Your task to perform on an android device: turn notification dots off Image 0: 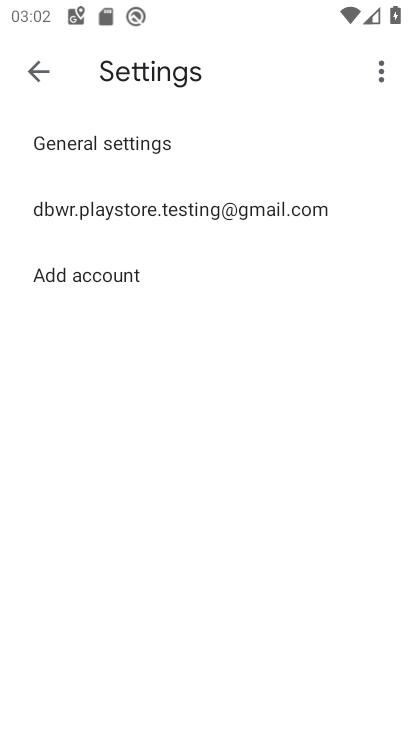
Step 0: press home button
Your task to perform on an android device: turn notification dots off Image 1: 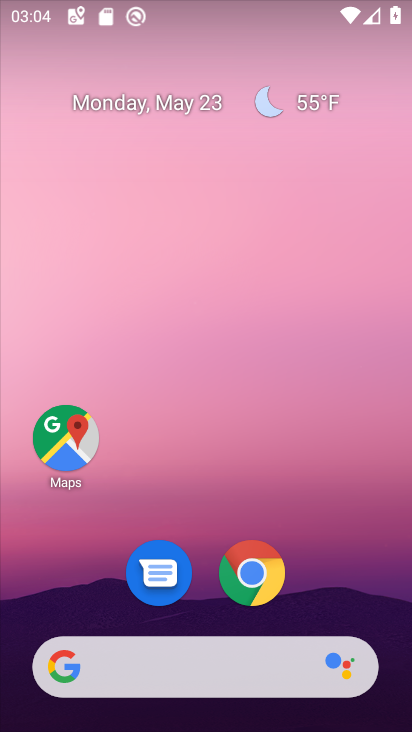
Step 1: drag from (328, 569) to (245, 29)
Your task to perform on an android device: turn notification dots off Image 2: 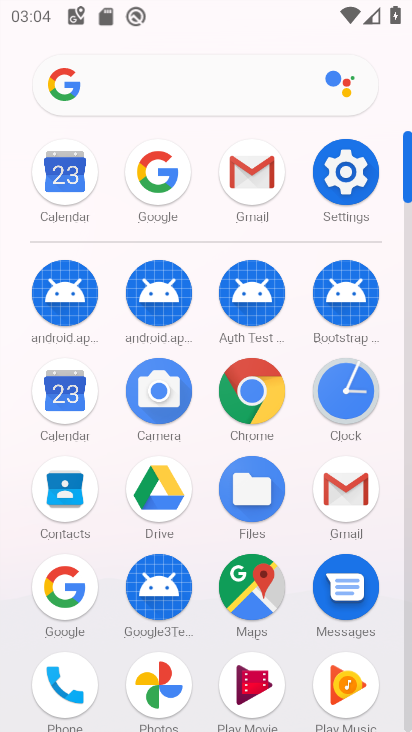
Step 2: click (354, 186)
Your task to perform on an android device: turn notification dots off Image 3: 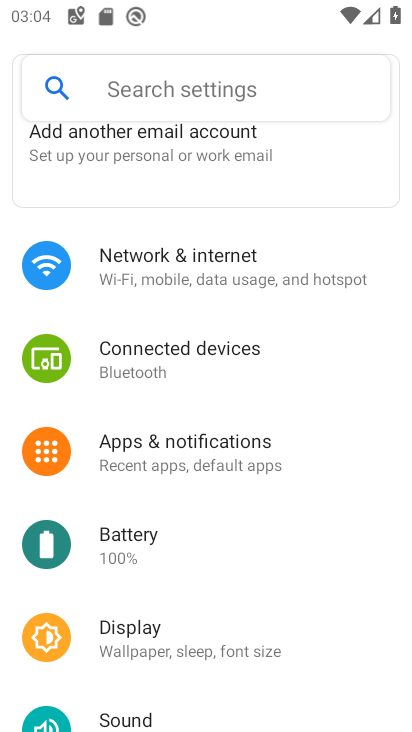
Step 3: click (199, 459)
Your task to perform on an android device: turn notification dots off Image 4: 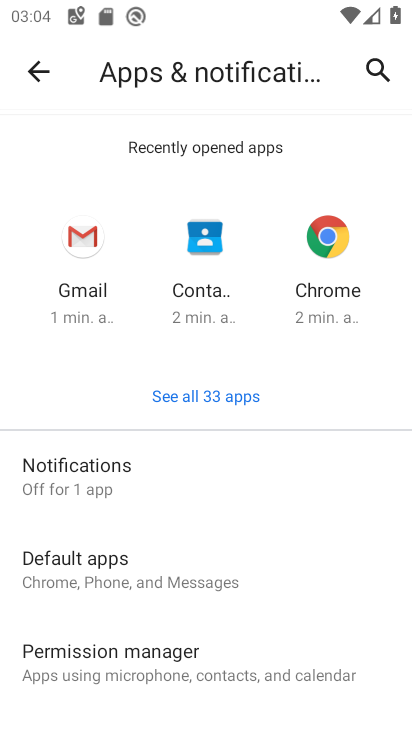
Step 4: click (135, 477)
Your task to perform on an android device: turn notification dots off Image 5: 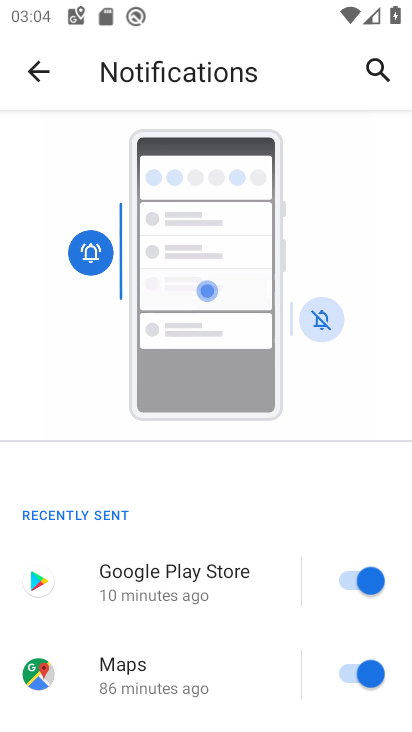
Step 5: drag from (221, 699) to (193, 317)
Your task to perform on an android device: turn notification dots off Image 6: 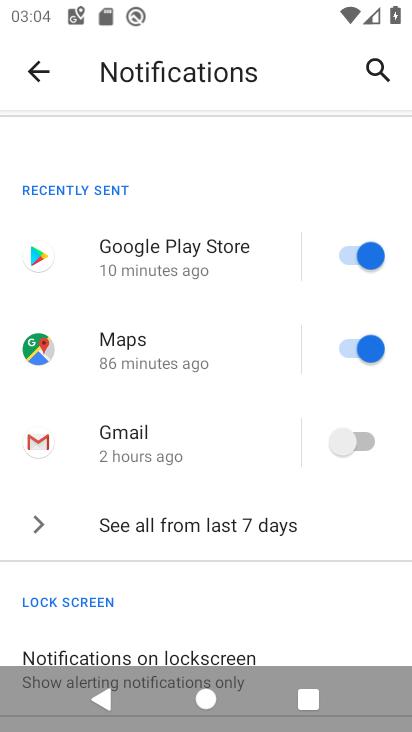
Step 6: drag from (246, 614) to (226, 182)
Your task to perform on an android device: turn notification dots off Image 7: 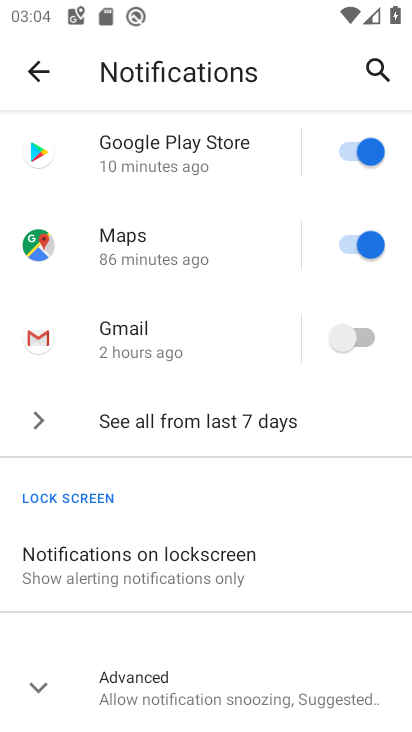
Step 7: click (243, 686)
Your task to perform on an android device: turn notification dots off Image 8: 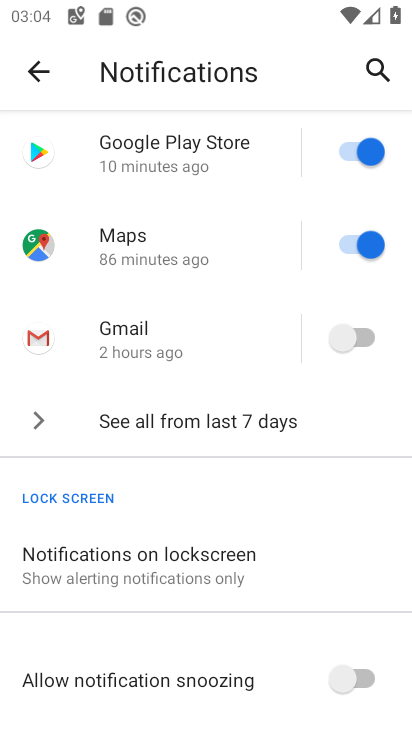
Step 8: task complete